Your task to perform on an android device: What's on my calendar tomorrow? Image 0: 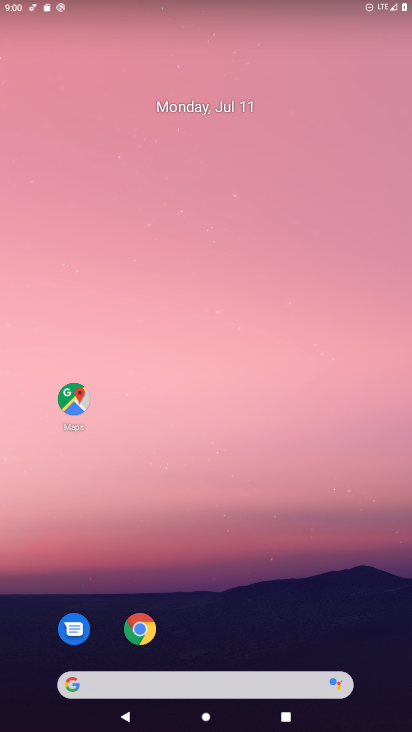
Step 0: click (195, 105)
Your task to perform on an android device: What's on my calendar tomorrow? Image 1: 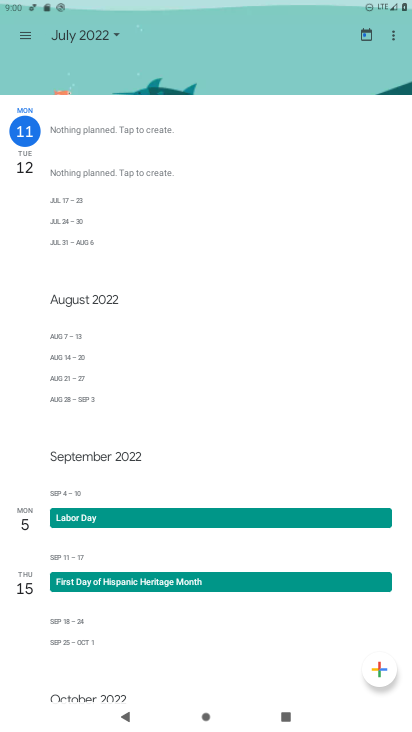
Step 1: task complete